Your task to perform on an android device: uninstall "Contacts" Image 0: 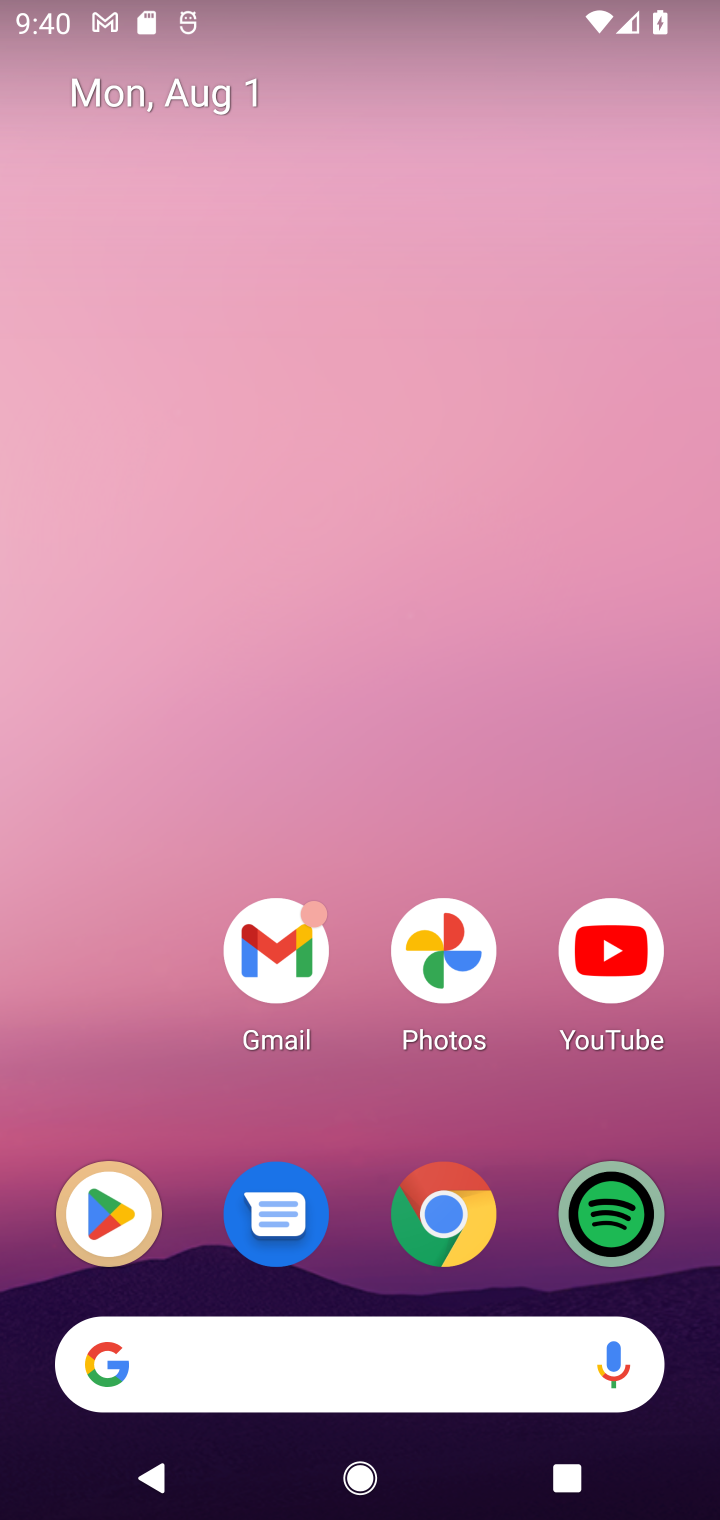
Step 0: press home button
Your task to perform on an android device: uninstall "Contacts" Image 1: 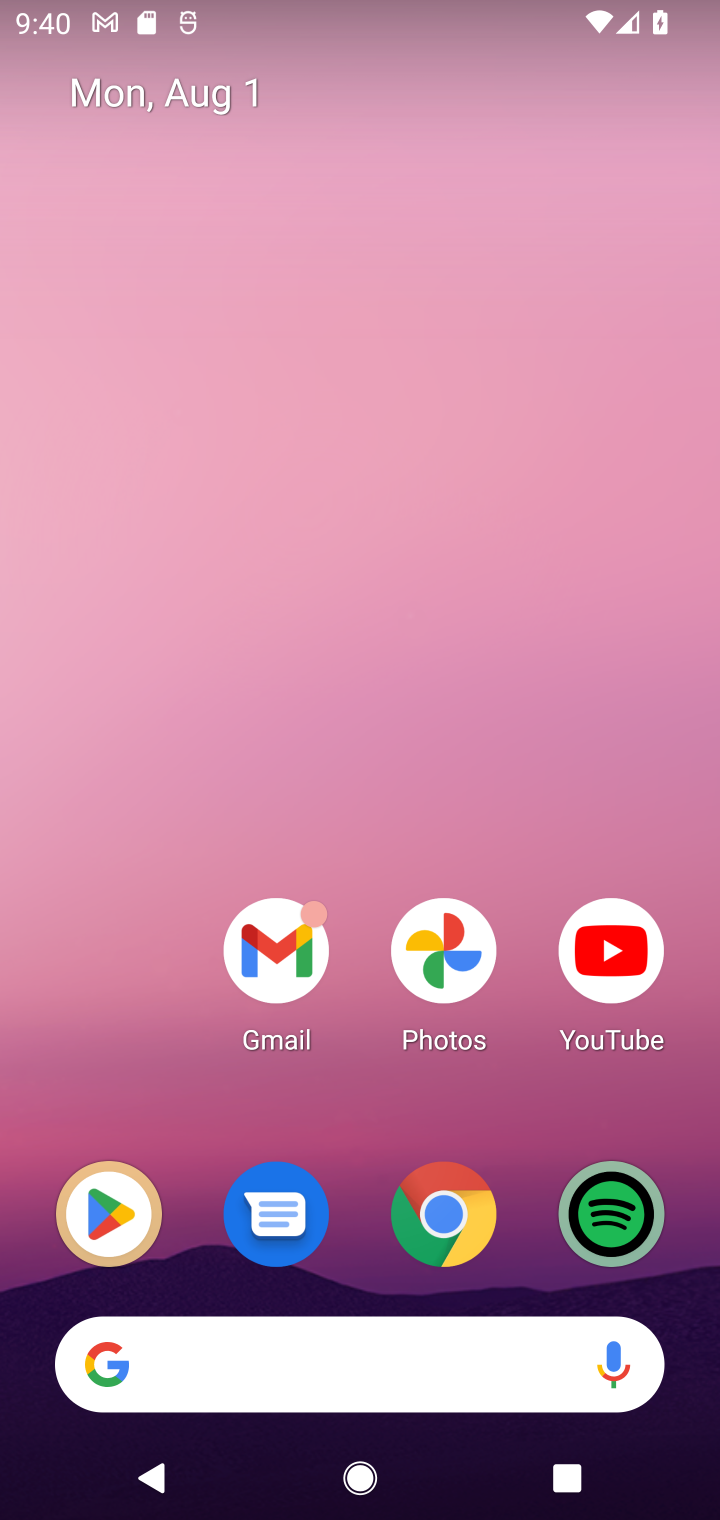
Step 1: press home button
Your task to perform on an android device: uninstall "Contacts" Image 2: 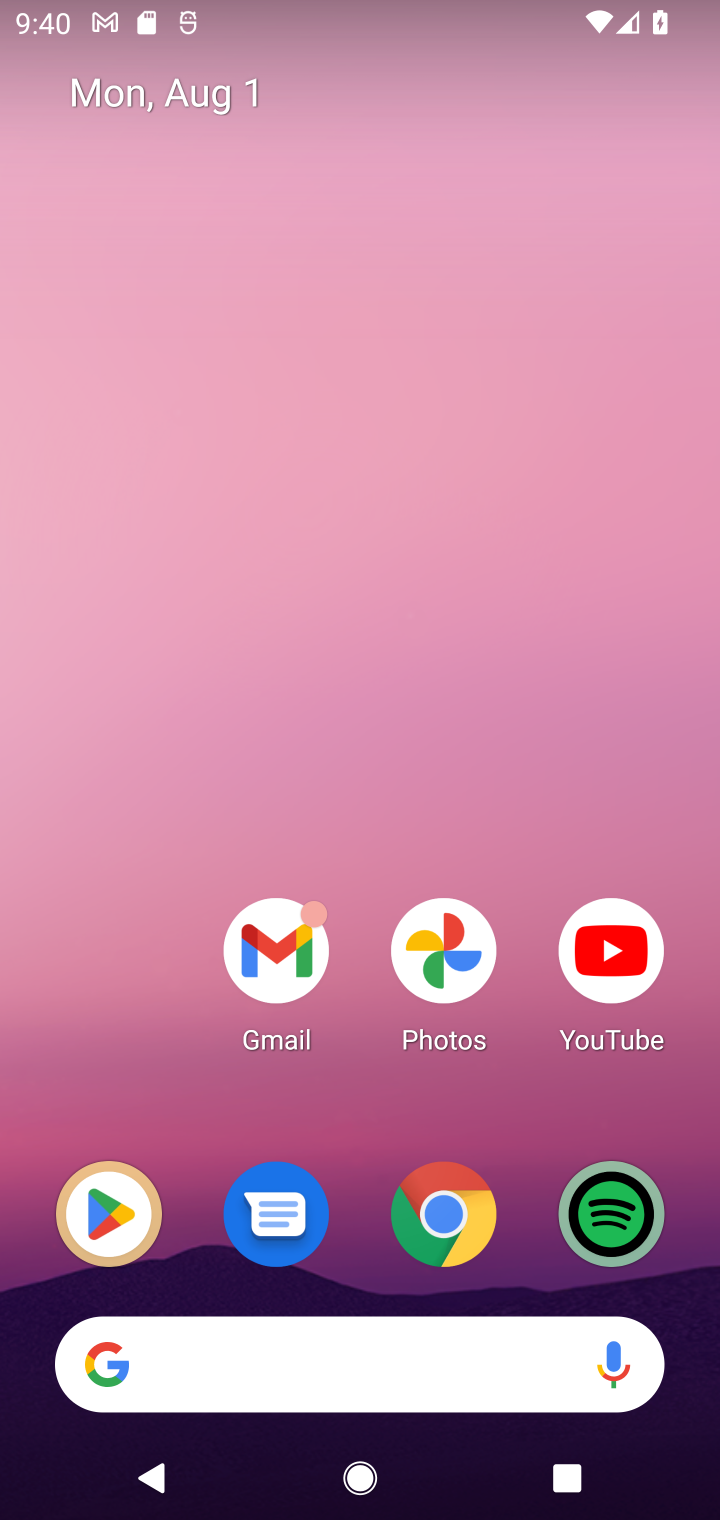
Step 2: click (110, 1220)
Your task to perform on an android device: uninstall "Contacts" Image 3: 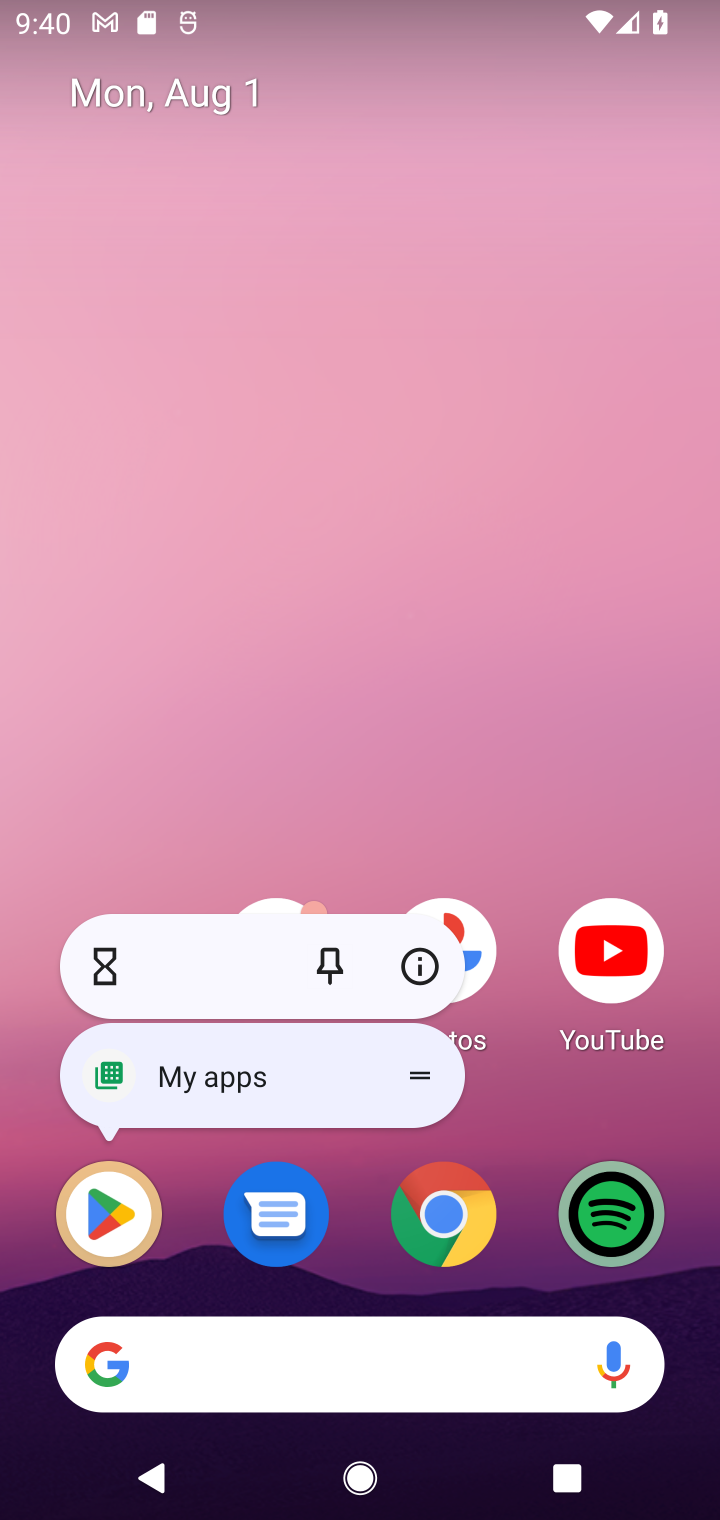
Step 3: click (110, 1216)
Your task to perform on an android device: uninstall "Contacts" Image 4: 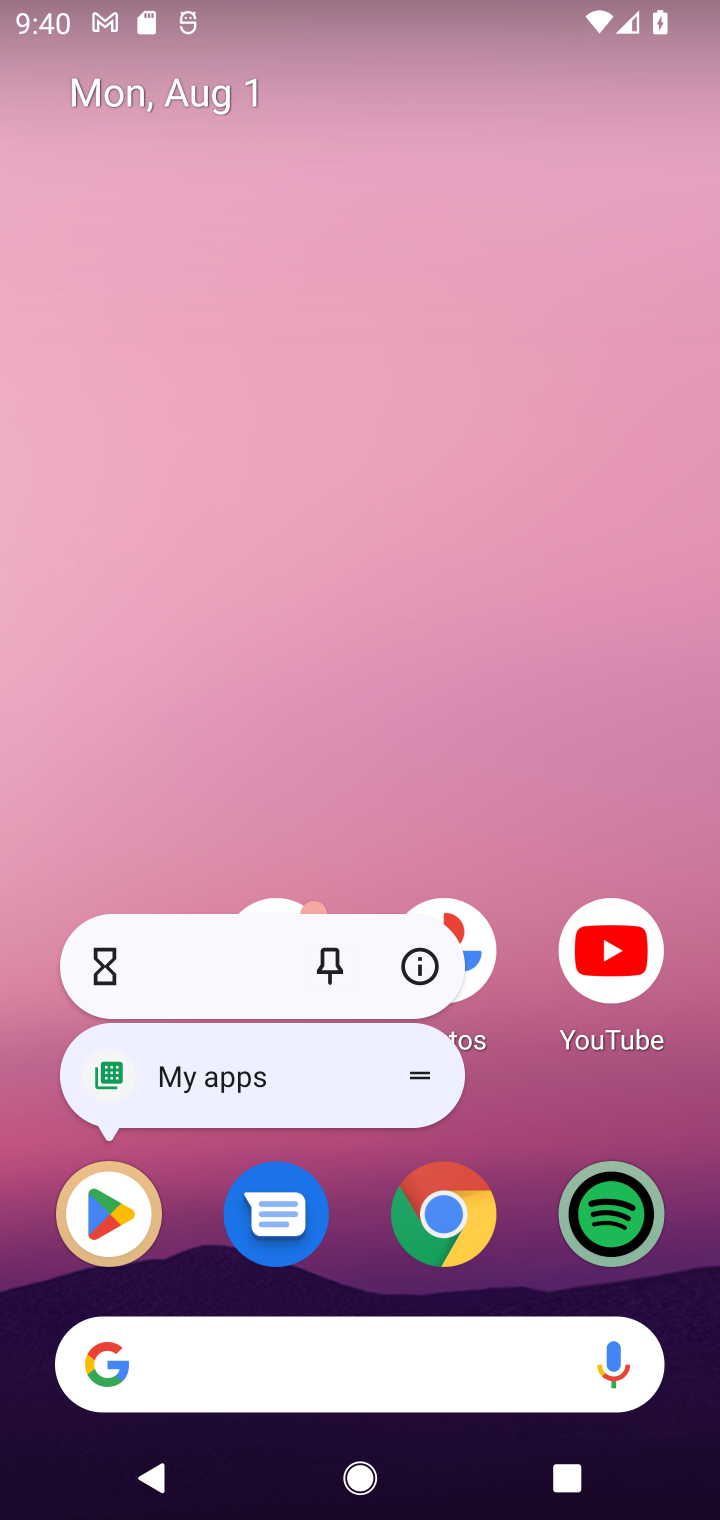
Step 4: click (94, 1201)
Your task to perform on an android device: uninstall "Contacts" Image 5: 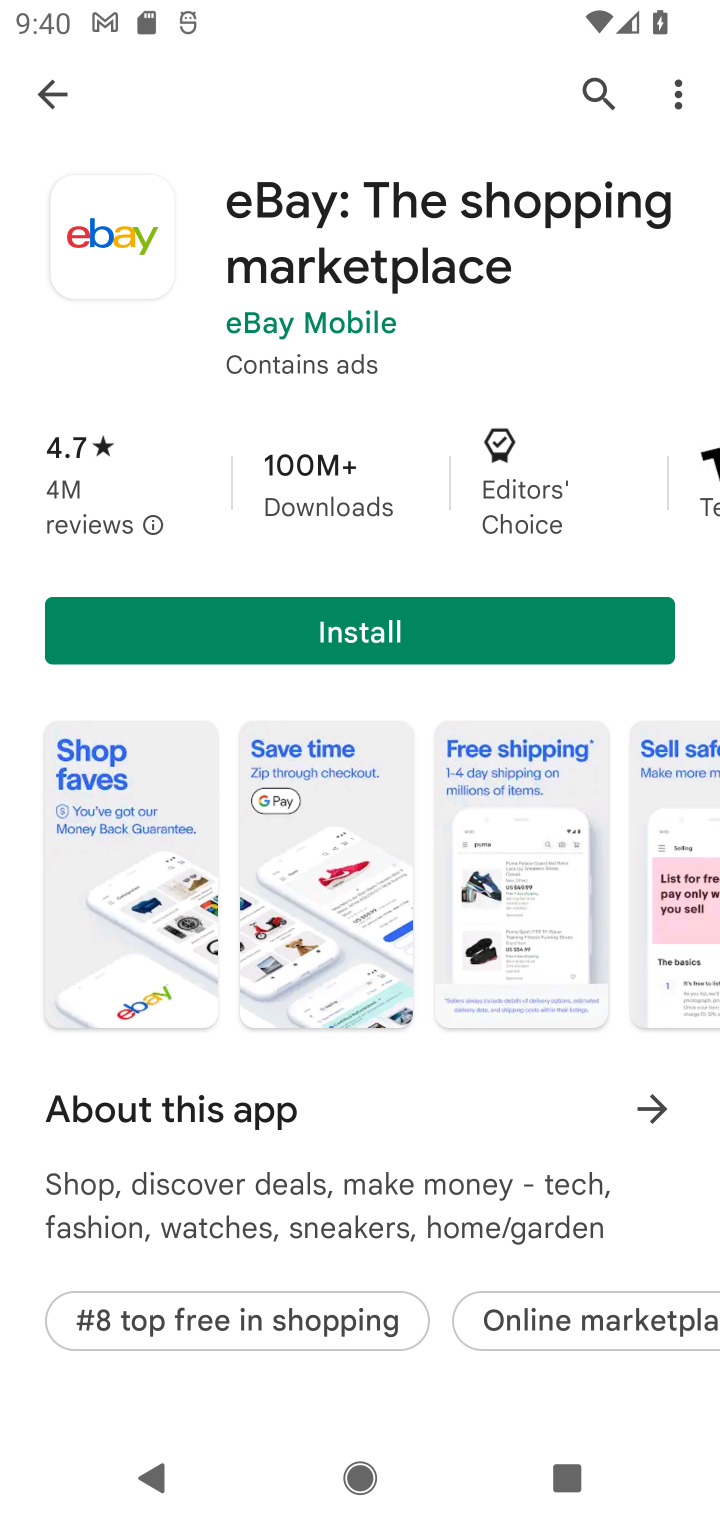
Step 5: click (585, 87)
Your task to perform on an android device: uninstall "Contacts" Image 6: 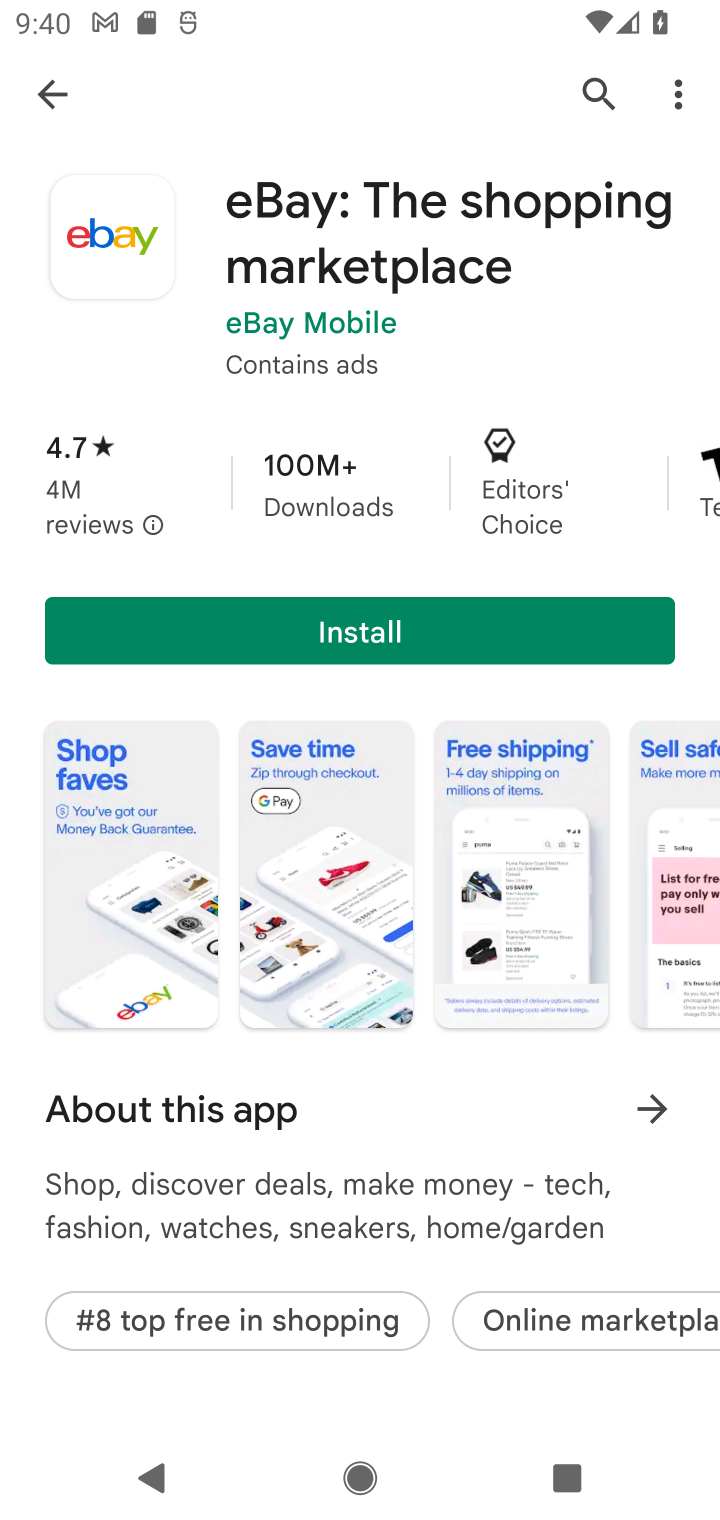
Step 6: click (581, 74)
Your task to perform on an android device: uninstall "Contacts" Image 7: 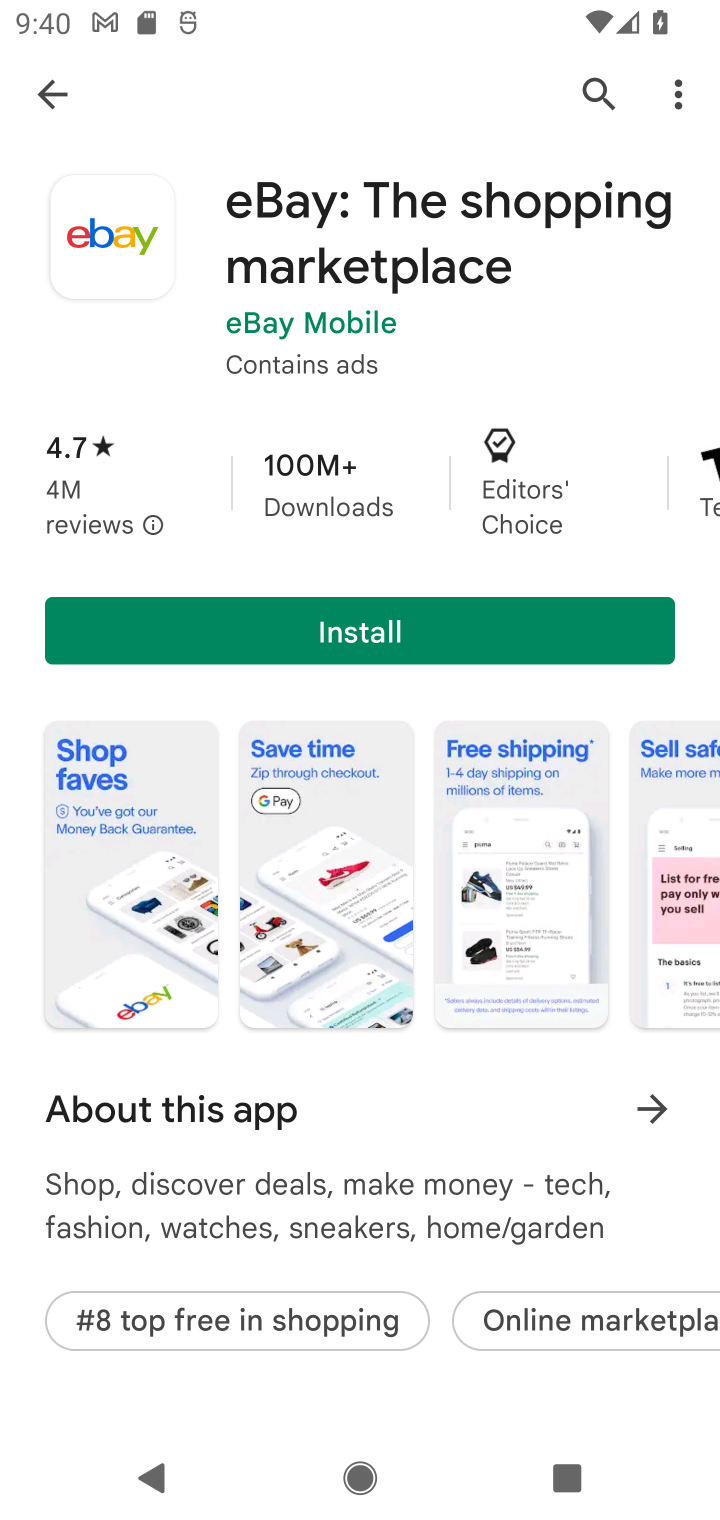
Step 7: click (589, 87)
Your task to perform on an android device: uninstall "Contacts" Image 8: 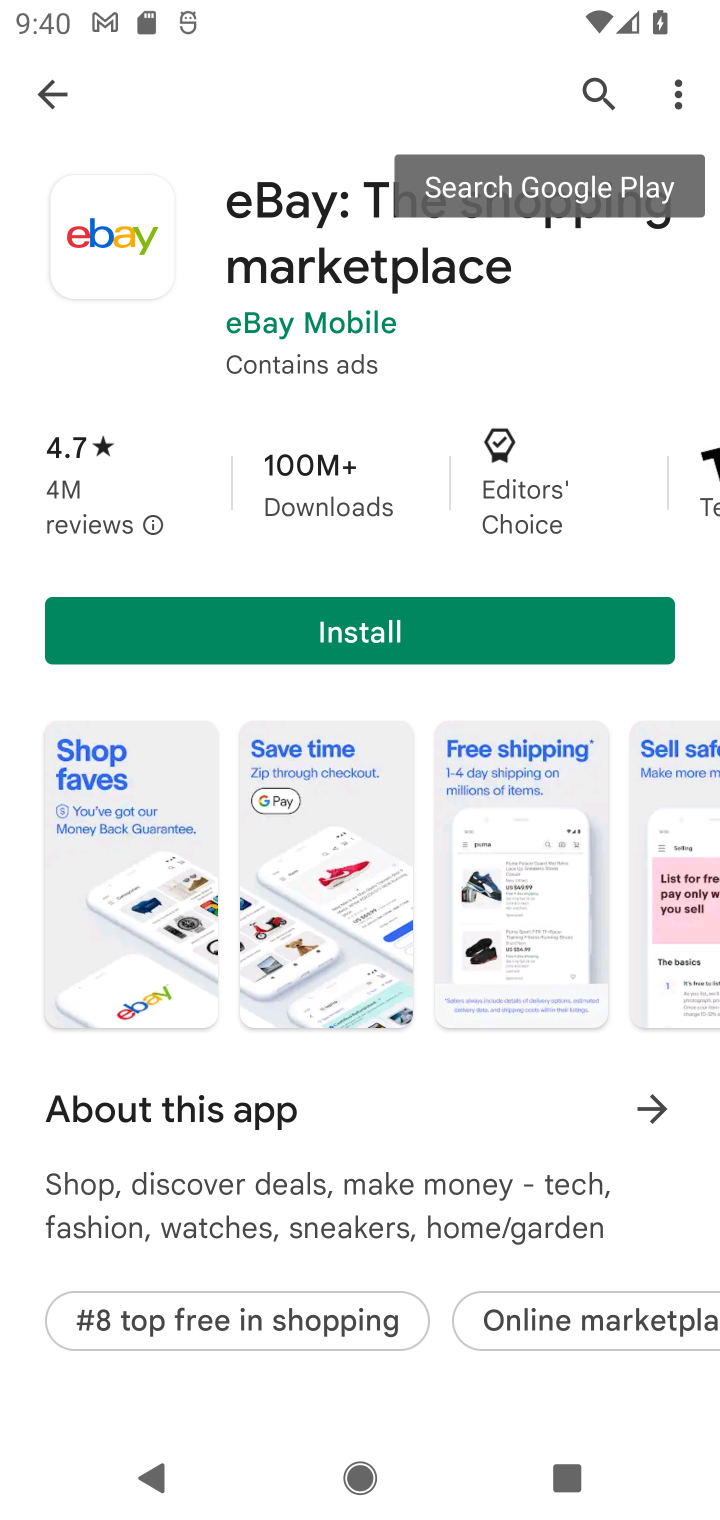
Step 8: click (42, 83)
Your task to perform on an android device: uninstall "Contacts" Image 9: 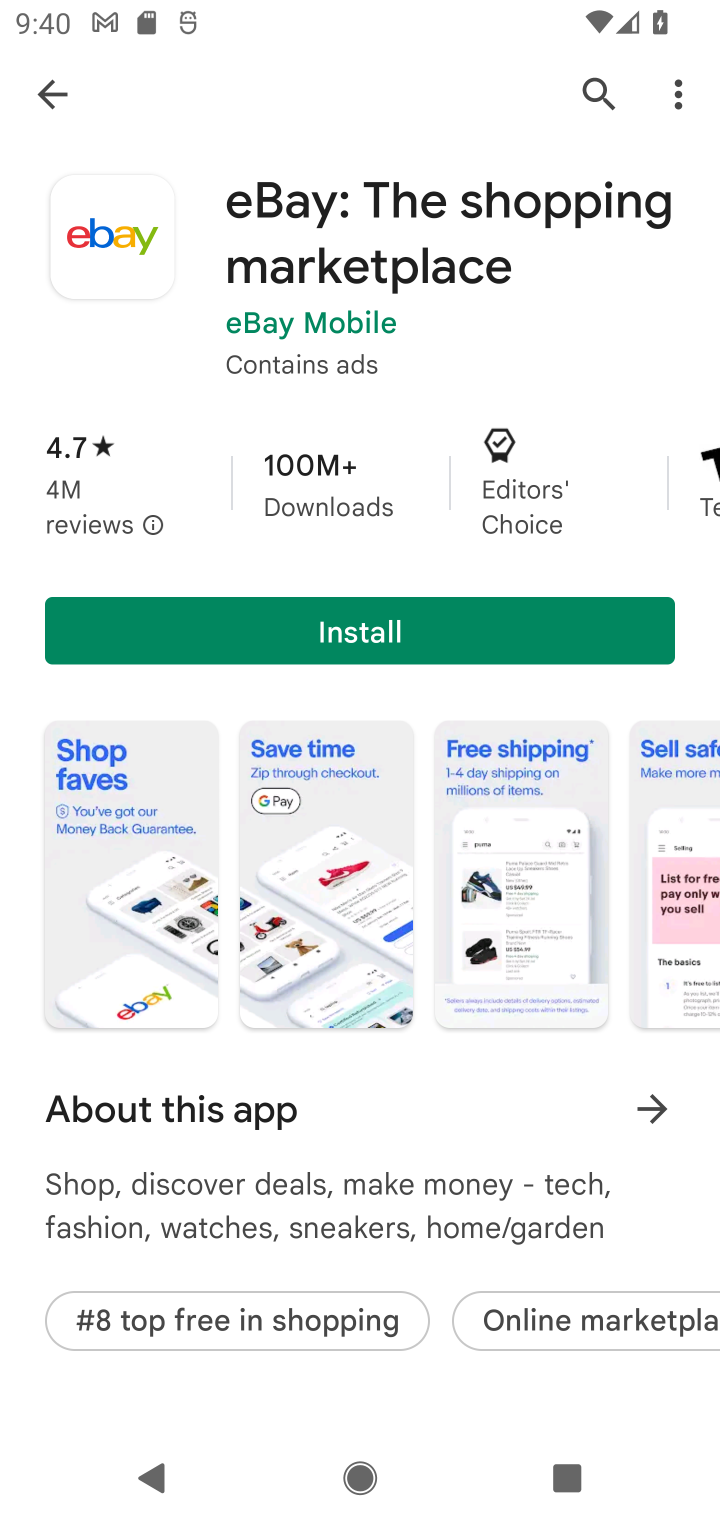
Step 9: click (591, 85)
Your task to perform on an android device: uninstall "Contacts" Image 10: 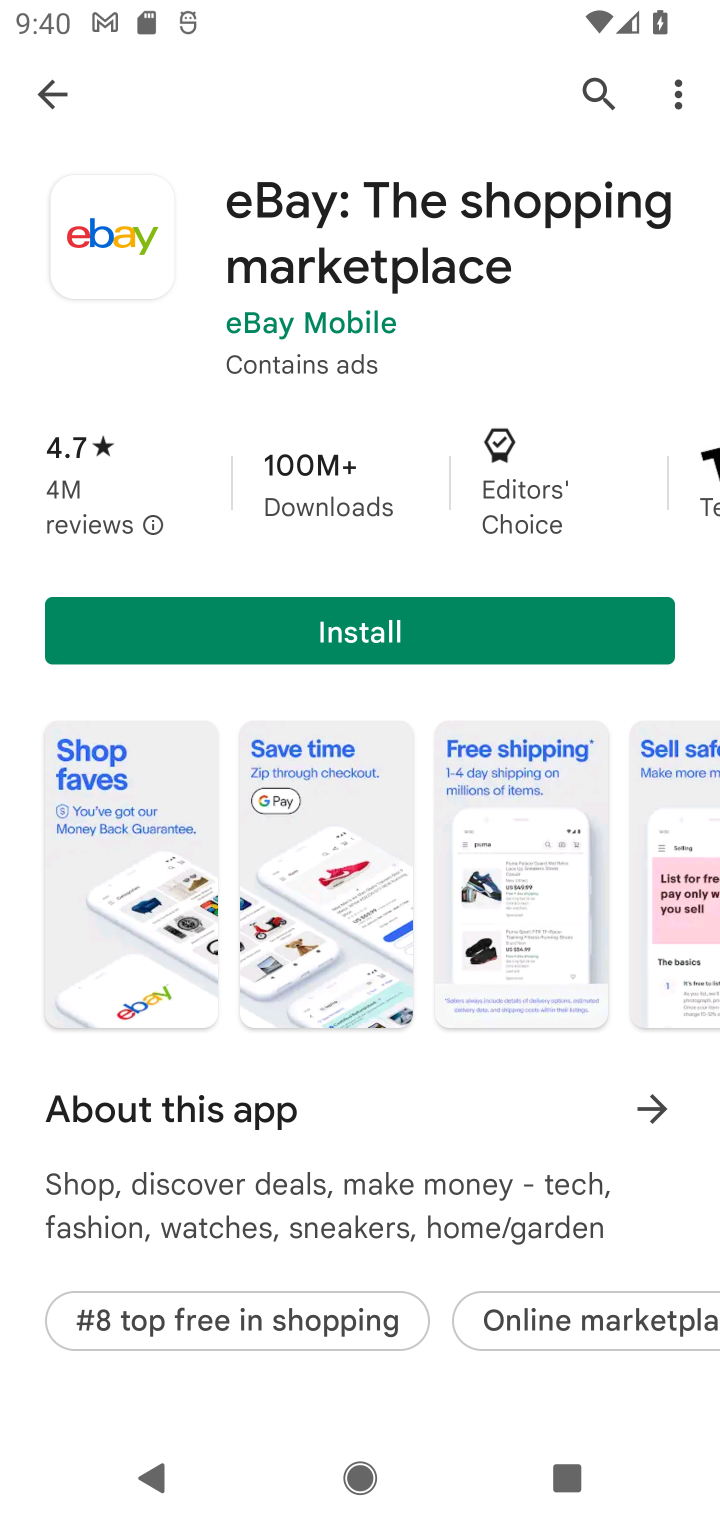
Step 10: click (331, 80)
Your task to perform on an android device: uninstall "Contacts" Image 11: 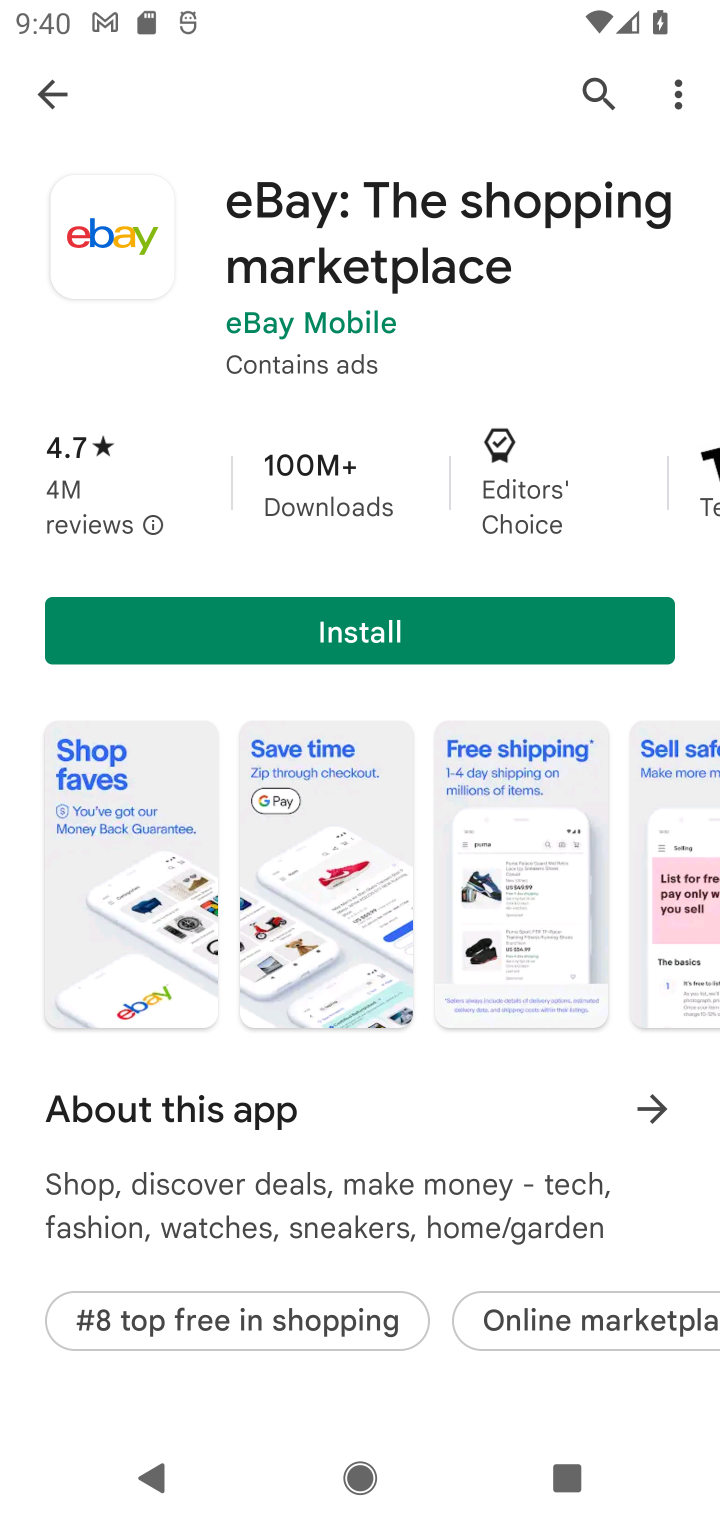
Step 11: click (46, 91)
Your task to perform on an android device: uninstall "Contacts" Image 12: 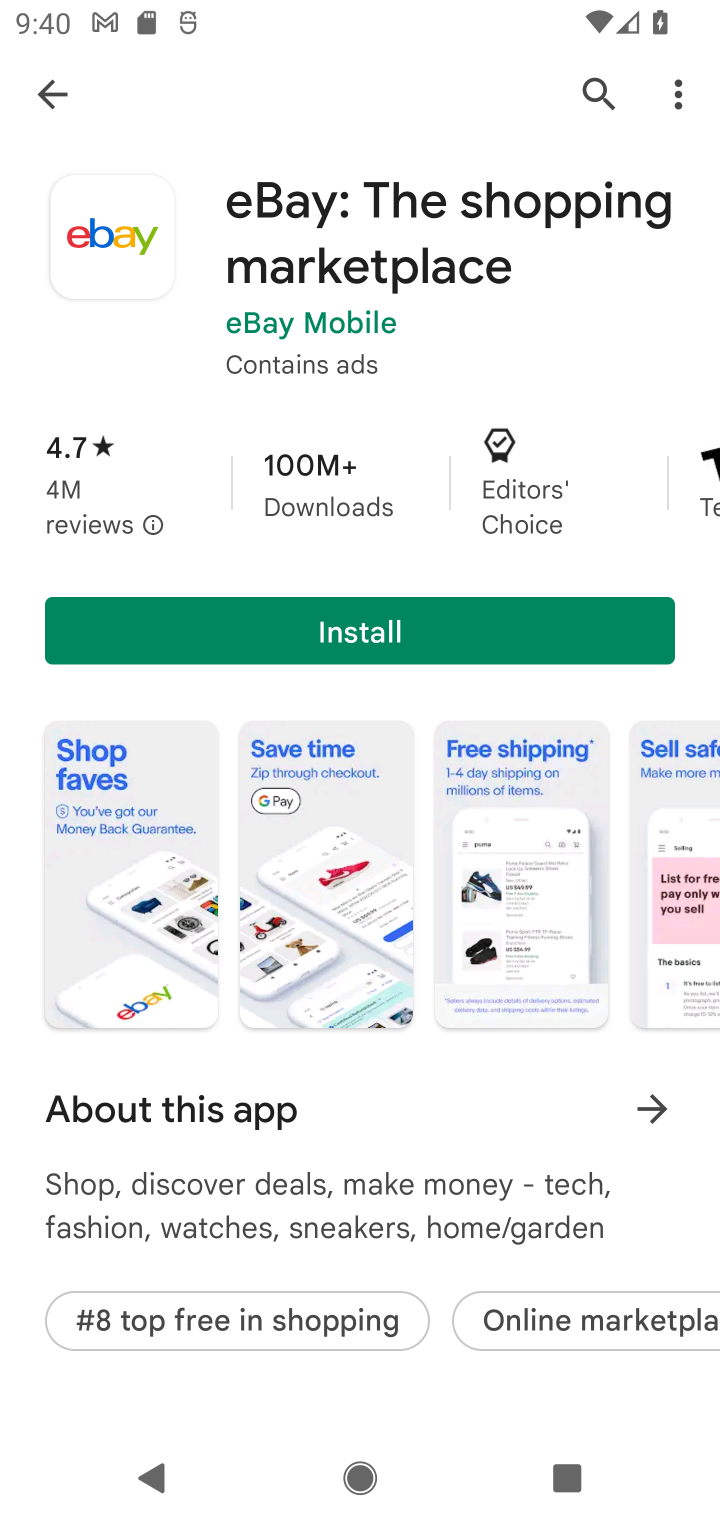
Step 12: press back button
Your task to perform on an android device: uninstall "Contacts" Image 13: 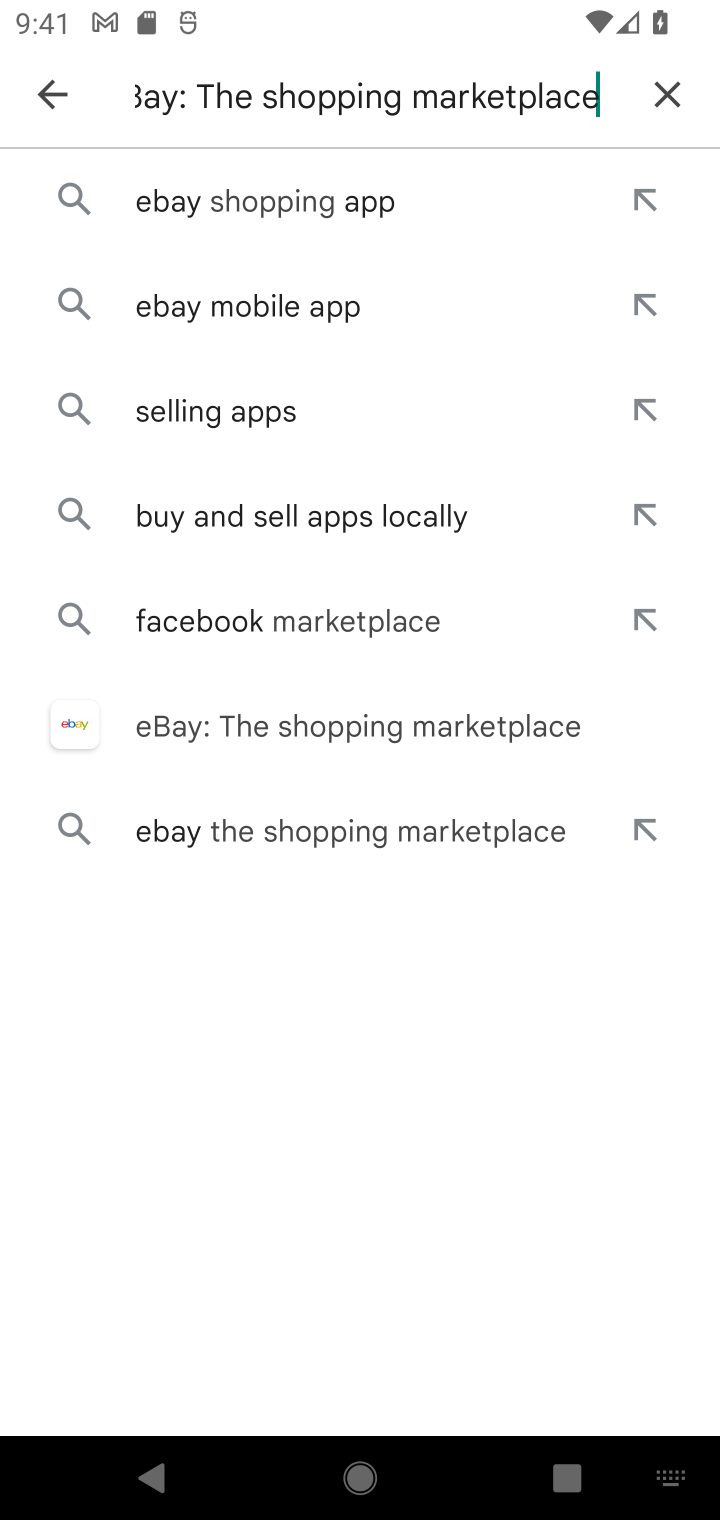
Step 13: click (664, 82)
Your task to perform on an android device: uninstall "Contacts" Image 14: 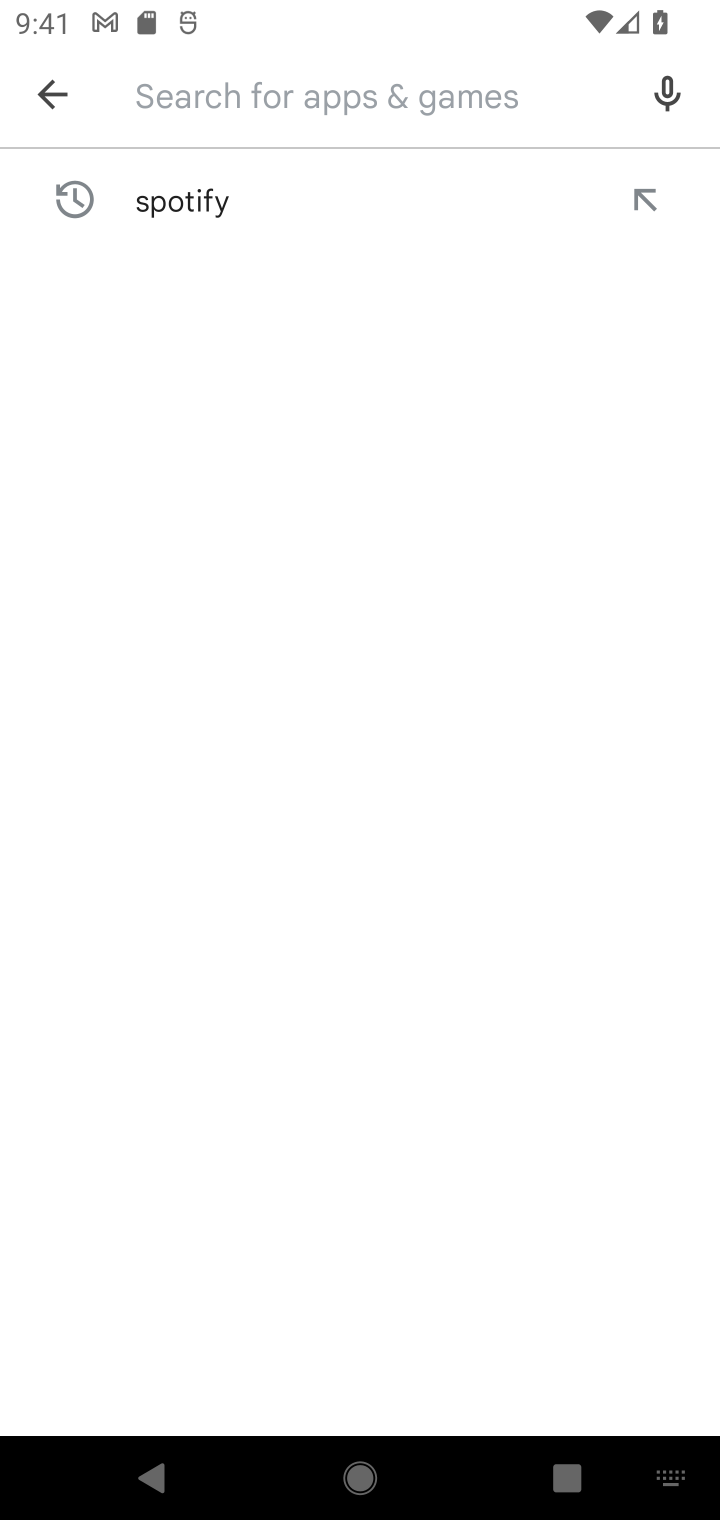
Step 14: type "Contacts"
Your task to perform on an android device: uninstall "Contacts" Image 15: 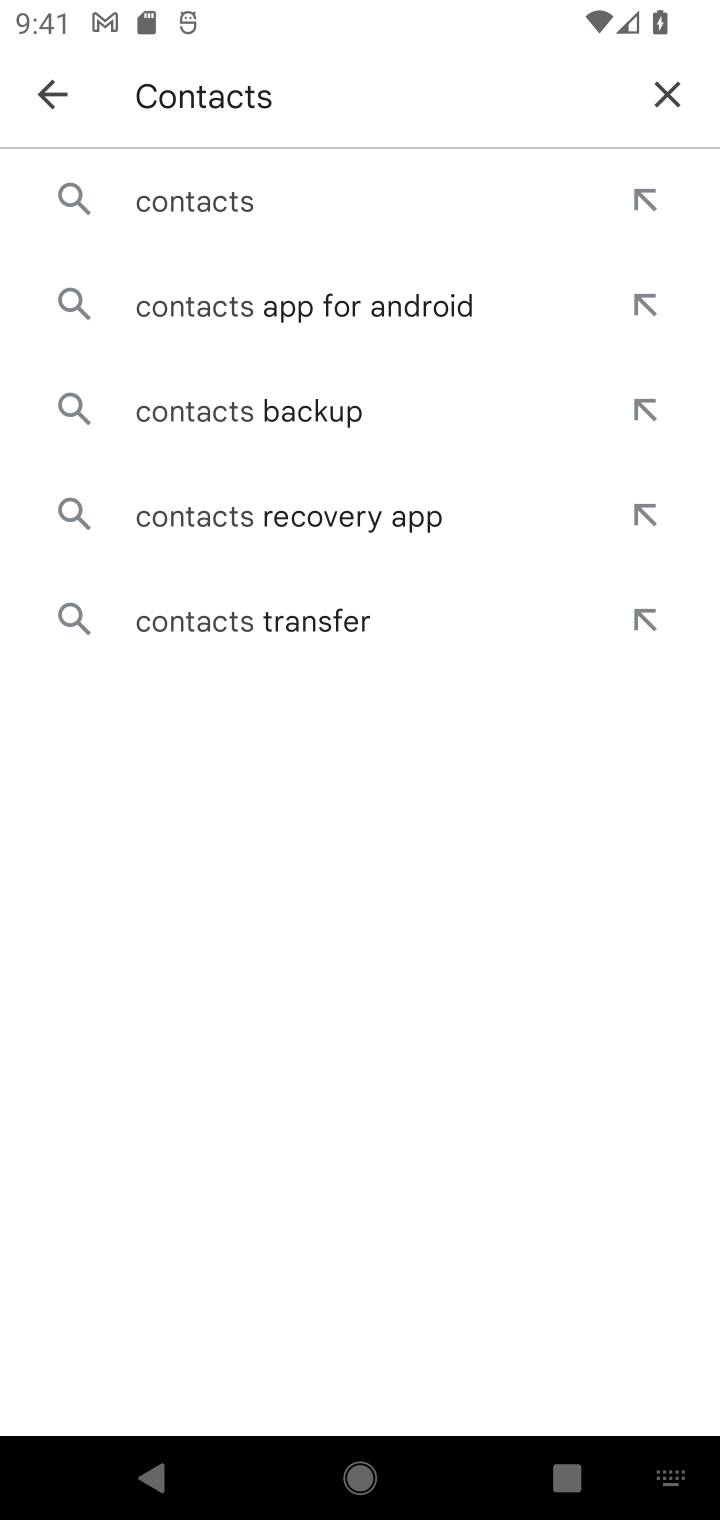
Step 15: click (230, 197)
Your task to perform on an android device: uninstall "Contacts" Image 16: 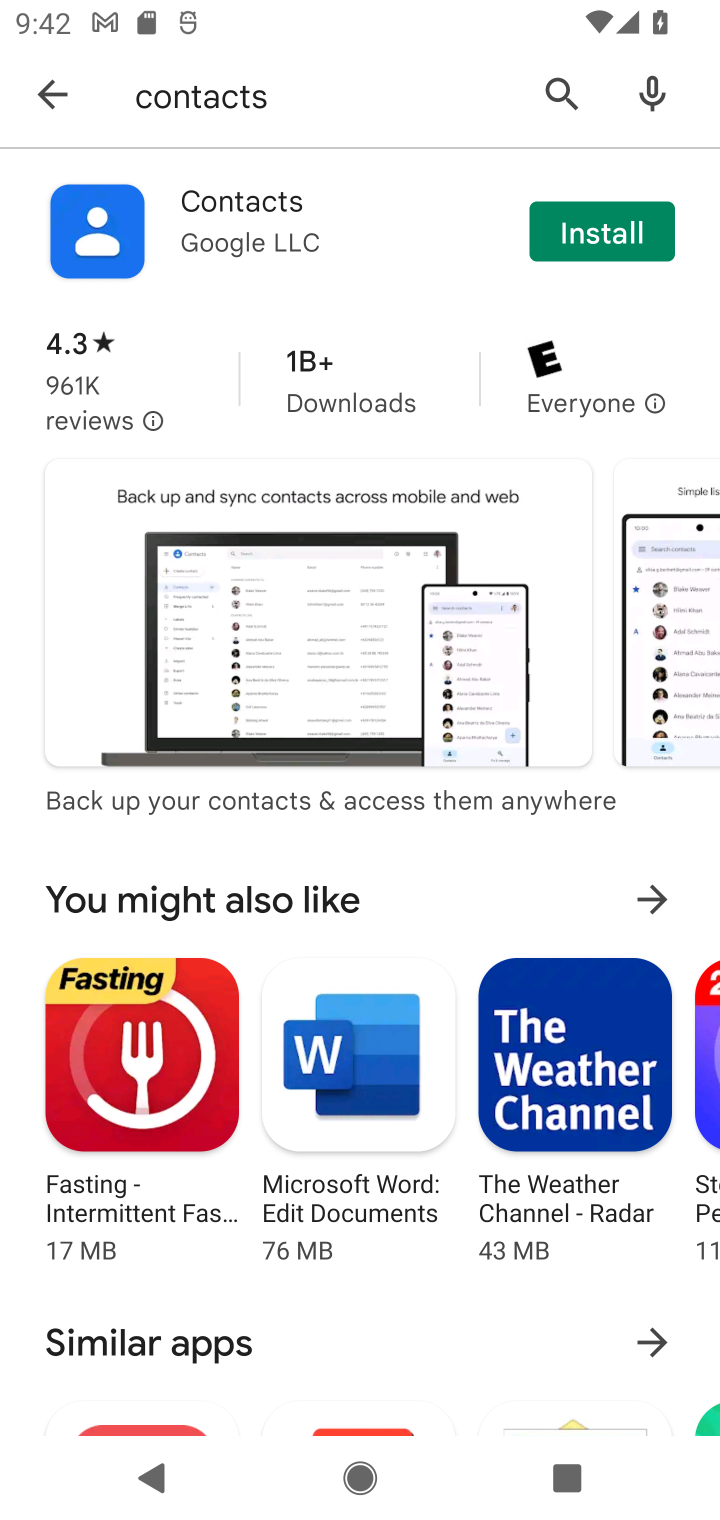
Step 16: task complete